Your task to perform on an android device: What is the news today? Image 0: 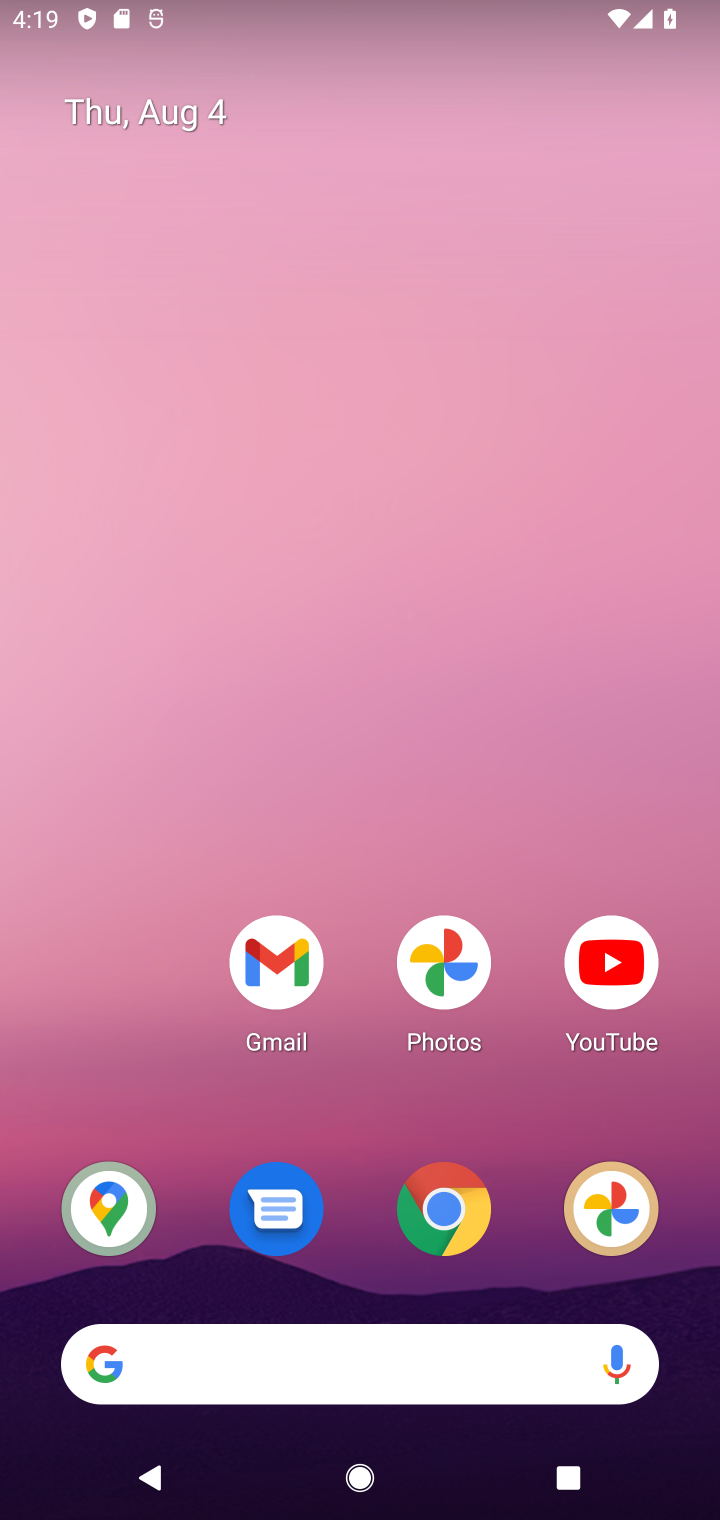
Step 0: click (295, 1355)
Your task to perform on an android device: What is the news today? Image 1: 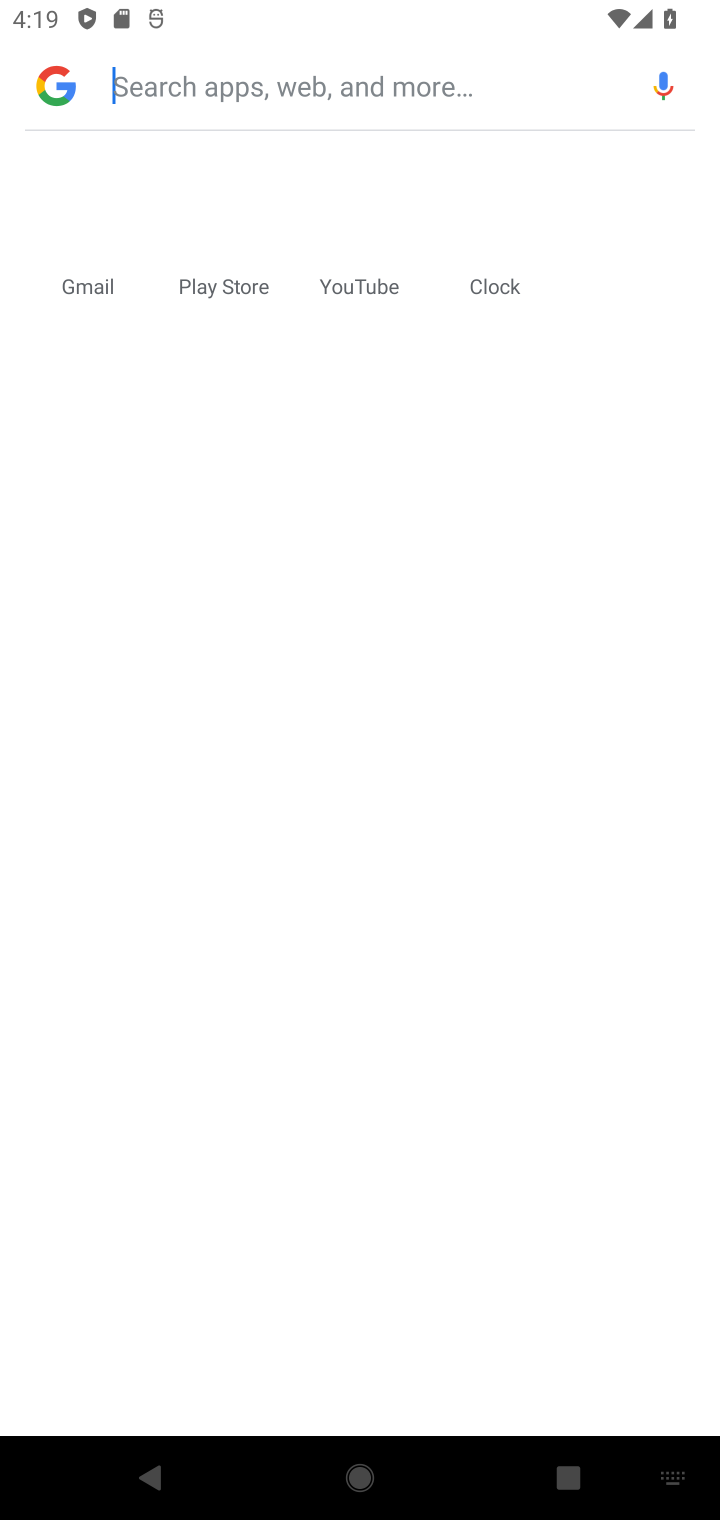
Step 1: type "news today"
Your task to perform on an android device: What is the news today? Image 2: 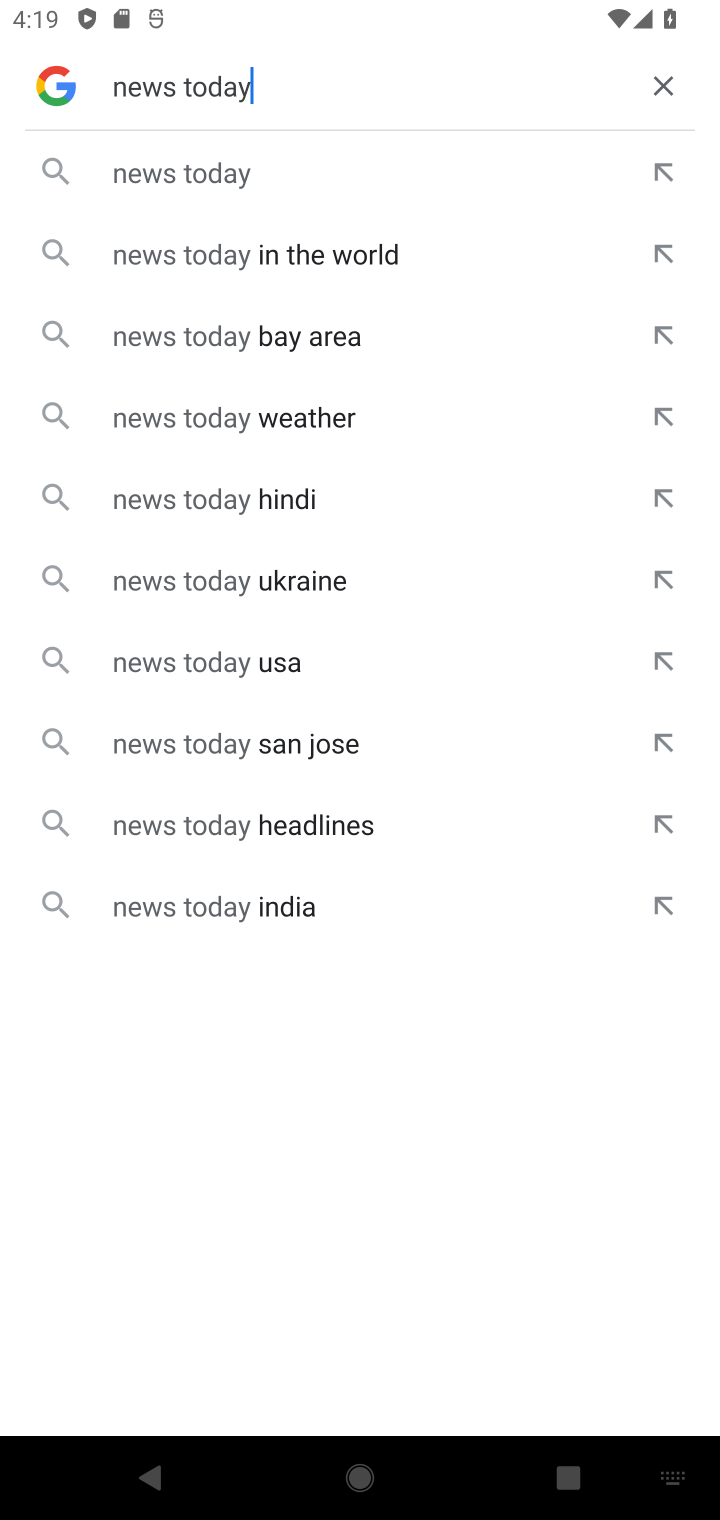
Step 2: click (173, 176)
Your task to perform on an android device: What is the news today? Image 3: 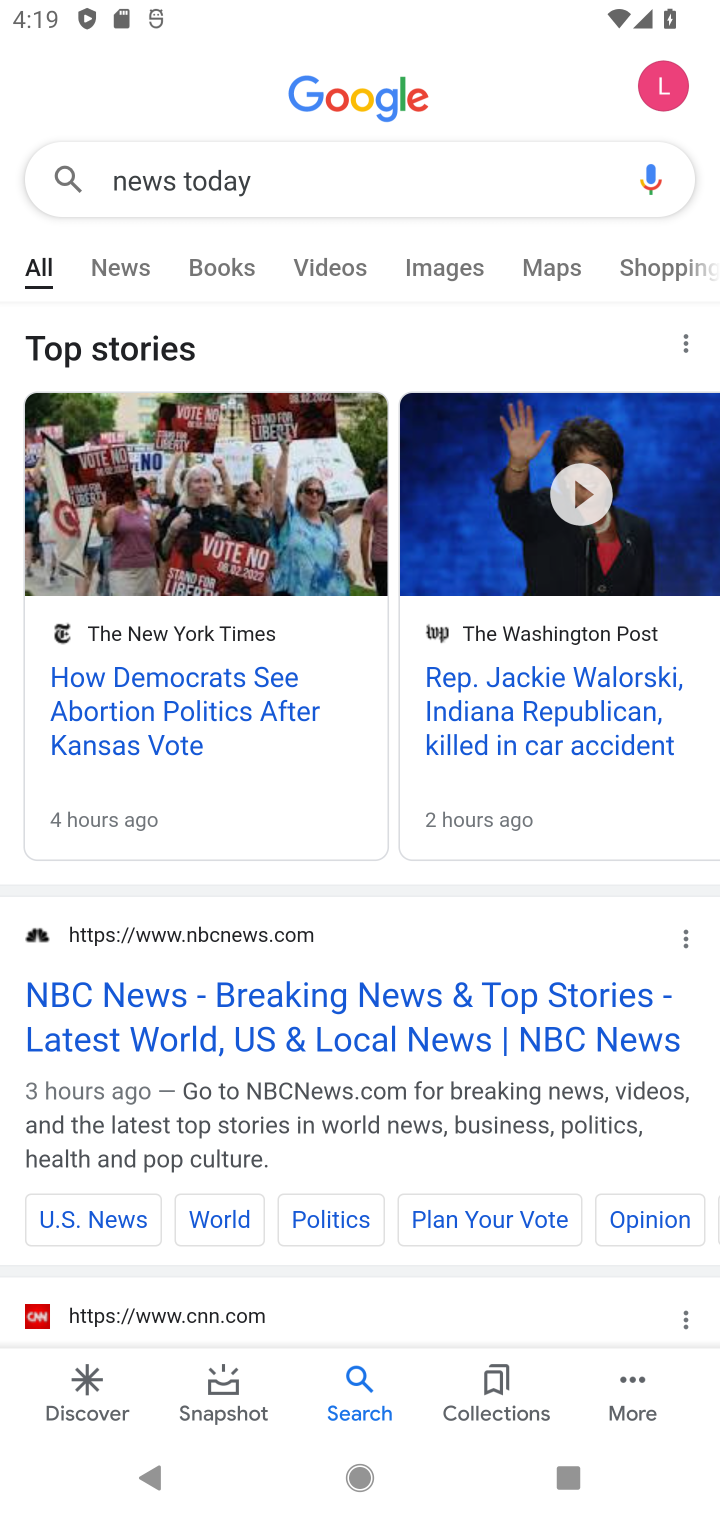
Step 3: click (130, 269)
Your task to perform on an android device: What is the news today? Image 4: 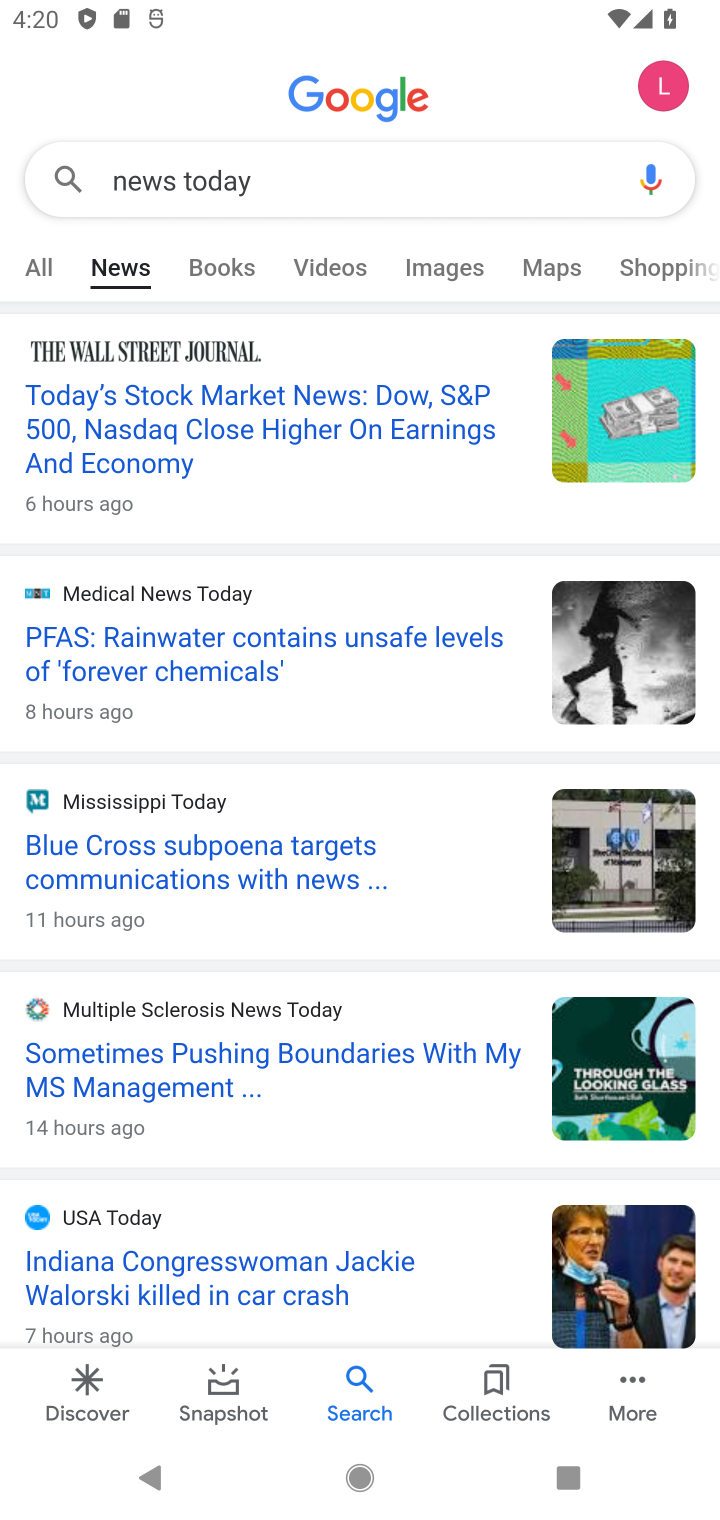
Step 4: task complete